Your task to perform on an android device: star an email in the gmail app Image 0: 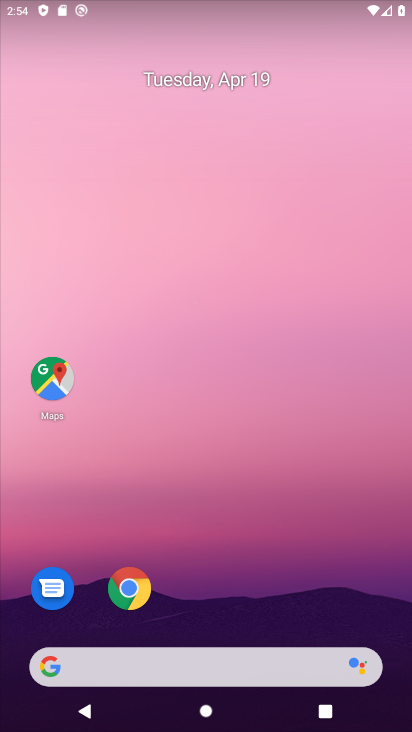
Step 0: drag from (232, 608) to (267, 212)
Your task to perform on an android device: star an email in the gmail app Image 1: 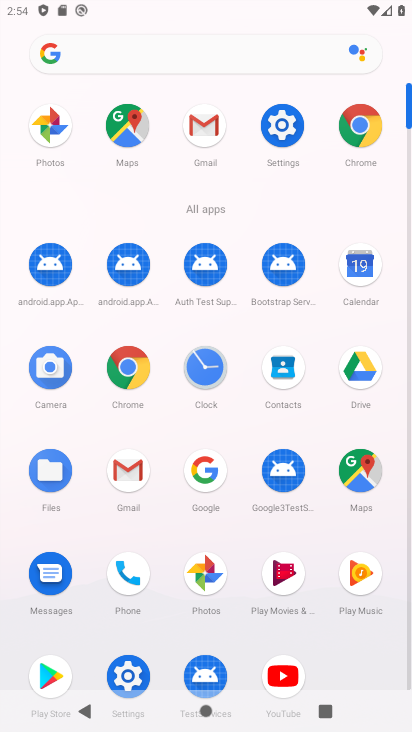
Step 1: click (134, 464)
Your task to perform on an android device: star an email in the gmail app Image 2: 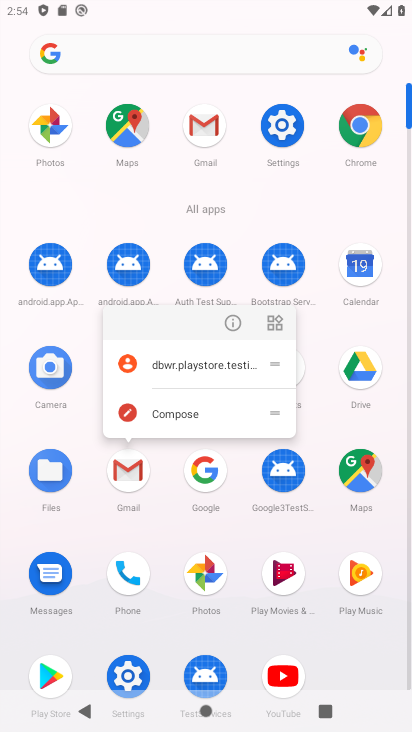
Step 2: click (232, 324)
Your task to perform on an android device: star an email in the gmail app Image 3: 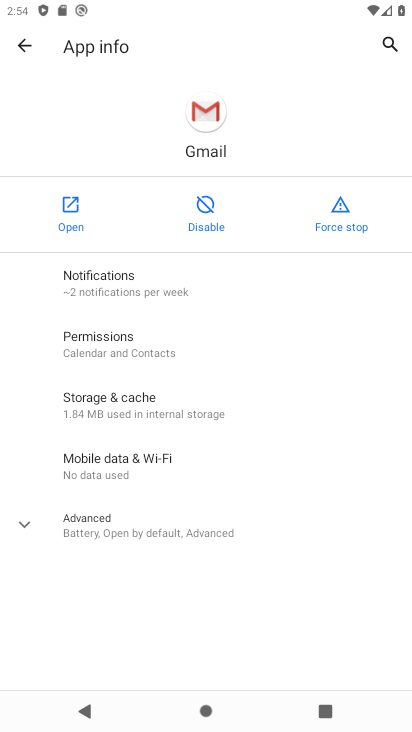
Step 3: click (69, 221)
Your task to perform on an android device: star an email in the gmail app Image 4: 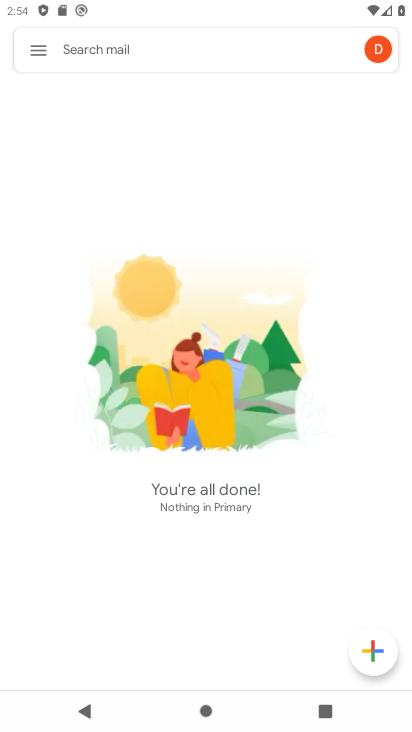
Step 4: click (27, 57)
Your task to perform on an android device: star an email in the gmail app Image 5: 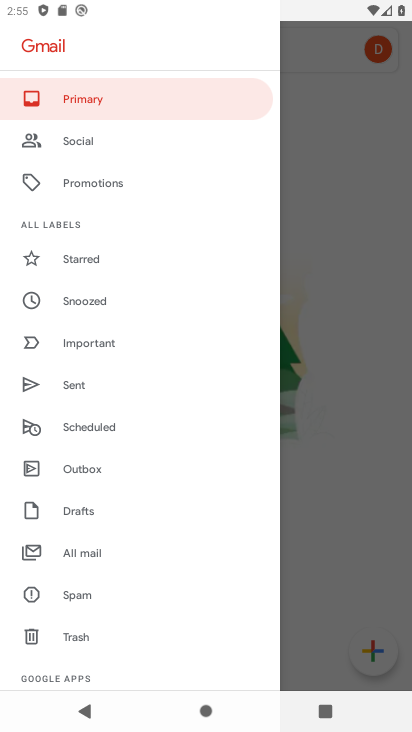
Step 5: task complete